Your task to perform on an android device: Do I have any events today? Image 0: 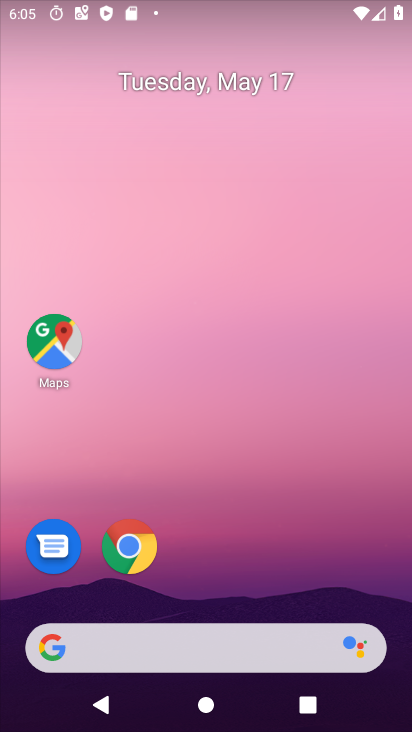
Step 0: drag from (261, 577) to (181, 342)
Your task to perform on an android device: Do I have any events today? Image 1: 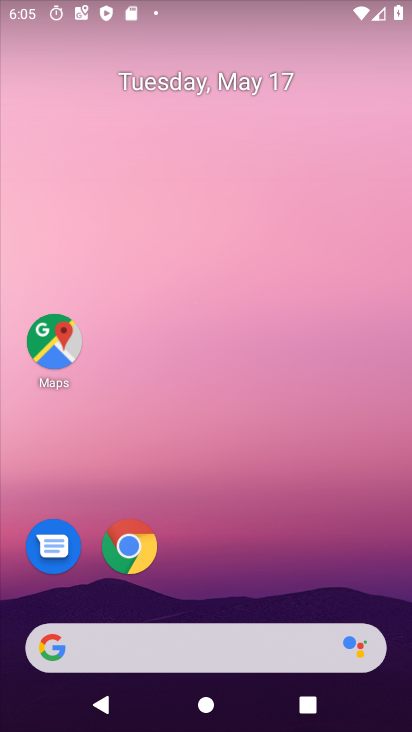
Step 1: drag from (251, 611) to (308, 79)
Your task to perform on an android device: Do I have any events today? Image 2: 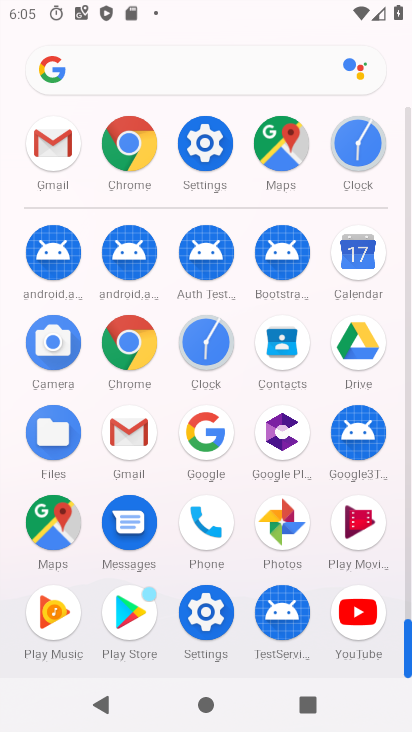
Step 2: click (365, 292)
Your task to perform on an android device: Do I have any events today? Image 3: 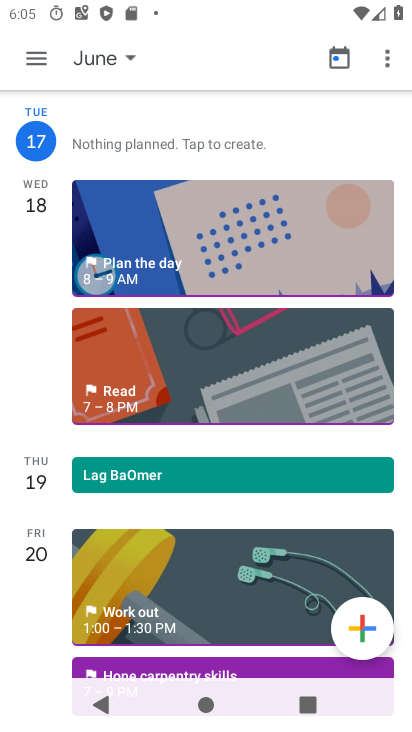
Step 3: task complete